Your task to perform on an android device: Search for asus zenbook on bestbuy.com, select the first entry, add it to the cart, then select checkout. Image 0: 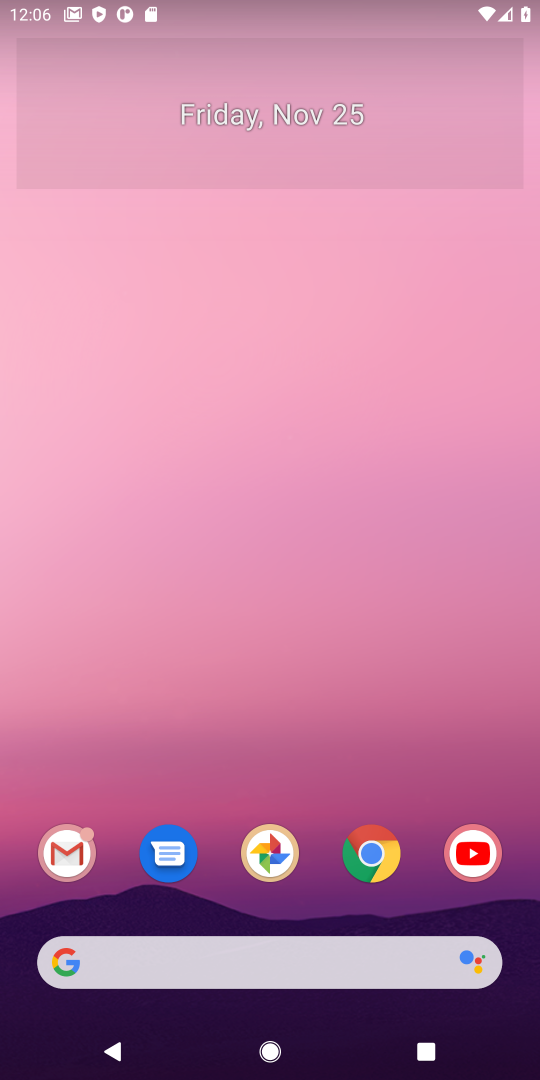
Step 0: click (328, 968)
Your task to perform on an android device: Search for asus zenbook on bestbuy.com, select the first entry, add it to the cart, then select checkout. Image 1: 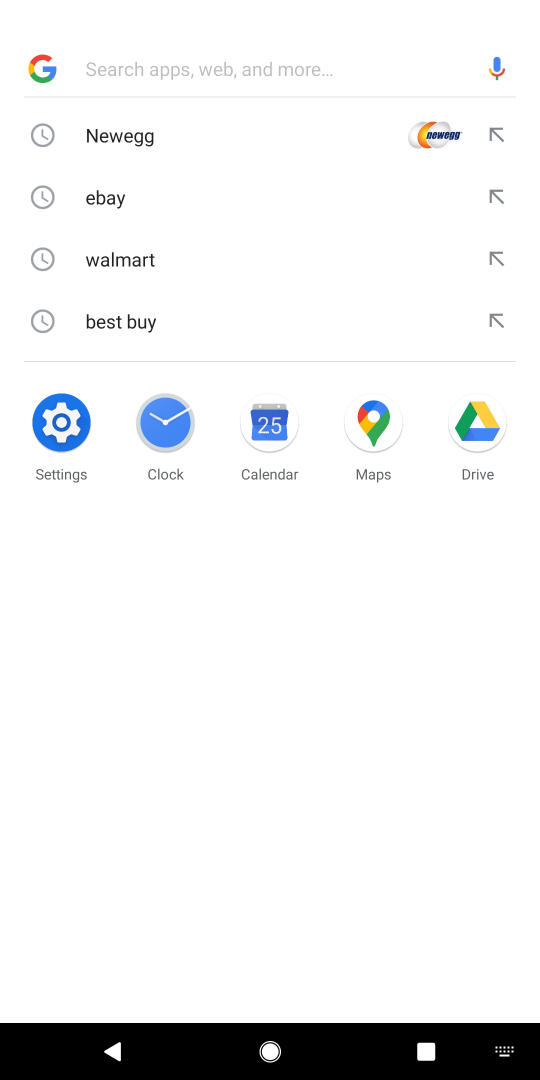
Step 1: click (177, 314)
Your task to perform on an android device: Search for asus zenbook on bestbuy.com, select the first entry, add it to the cart, then select checkout. Image 2: 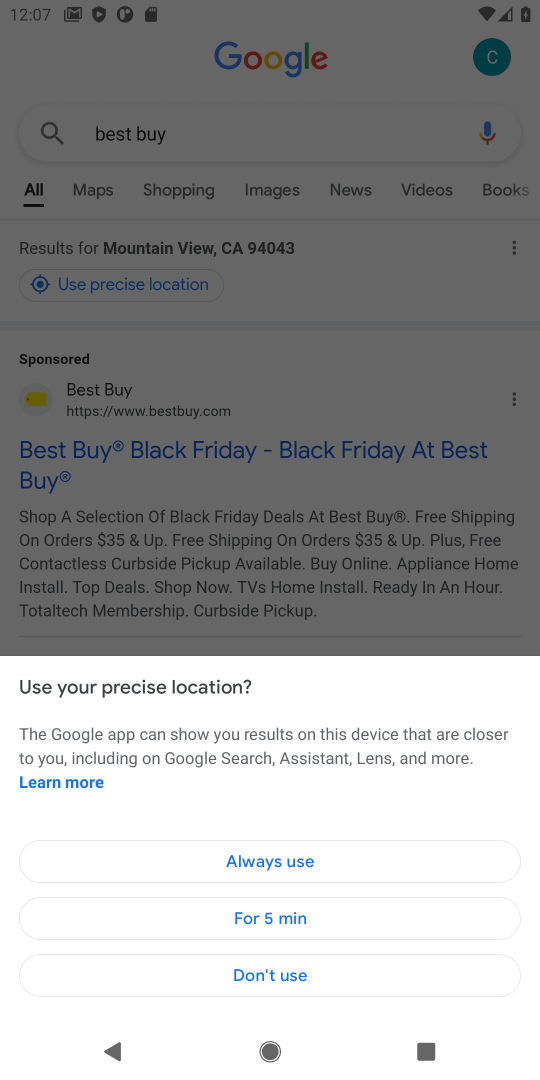
Step 2: click (290, 966)
Your task to perform on an android device: Search for asus zenbook on bestbuy.com, select the first entry, add it to the cart, then select checkout. Image 3: 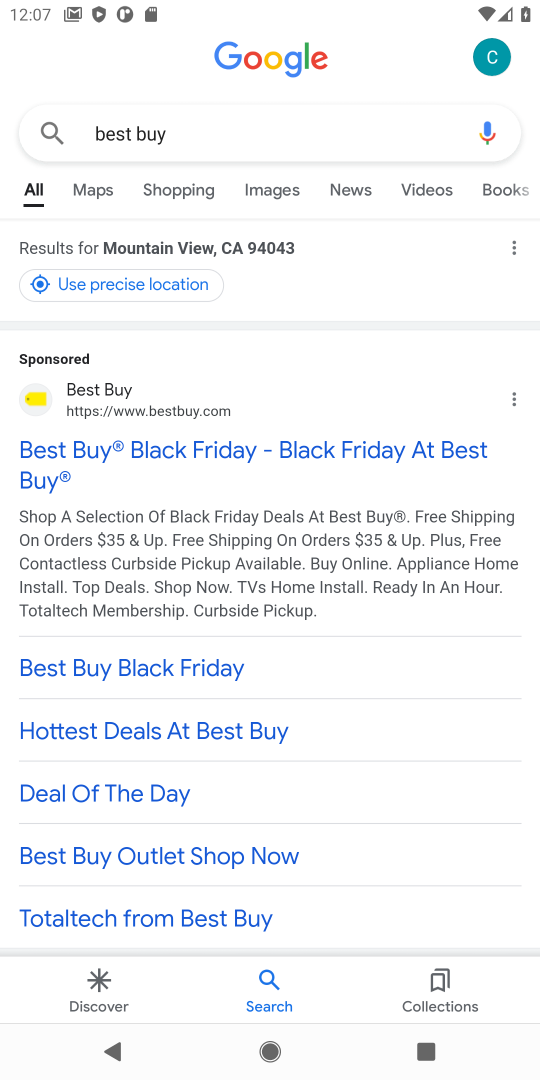
Step 3: click (285, 463)
Your task to perform on an android device: Search for asus zenbook on bestbuy.com, select the first entry, add it to the cart, then select checkout. Image 4: 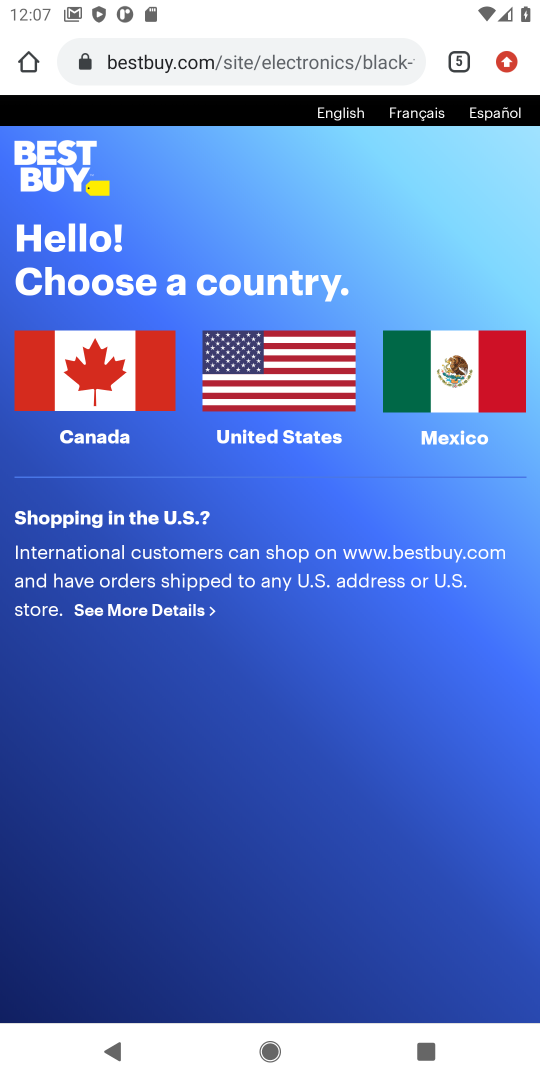
Step 4: click (100, 387)
Your task to perform on an android device: Search for asus zenbook on bestbuy.com, select the first entry, add it to the cart, then select checkout. Image 5: 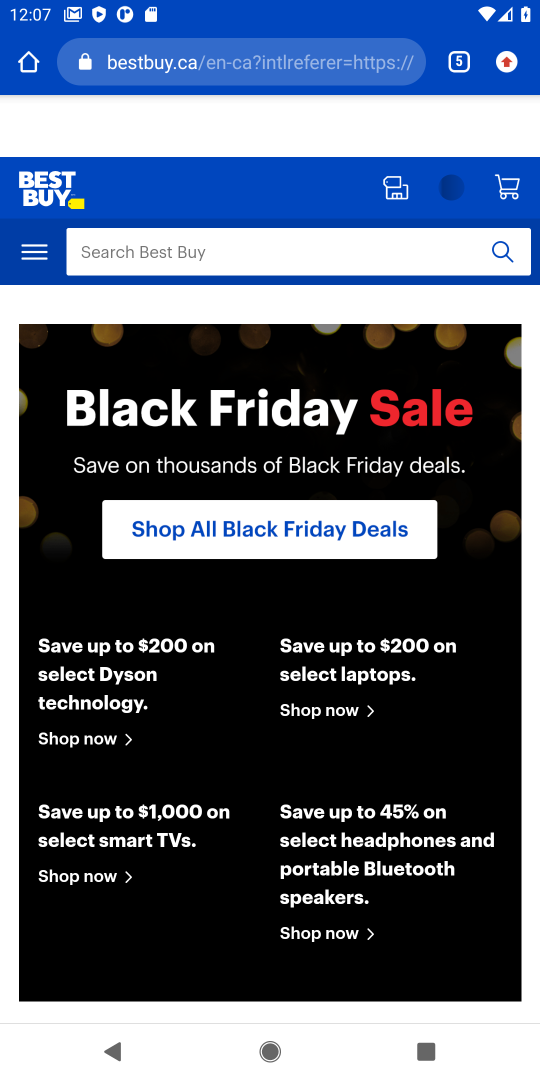
Step 5: click (186, 244)
Your task to perform on an android device: Search for asus zenbook on bestbuy.com, select the first entry, add it to the cart, then select checkout. Image 6: 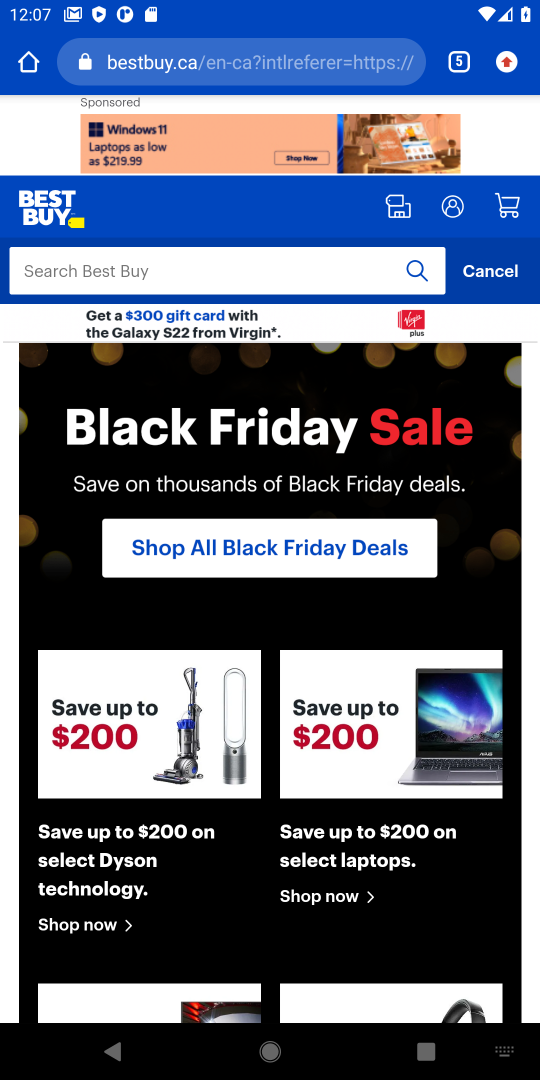
Step 6: type "asus zenbook"
Your task to perform on an android device: Search for asus zenbook on bestbuy.com, select the first entry, add it to the cart, then select checkout. Image 7: 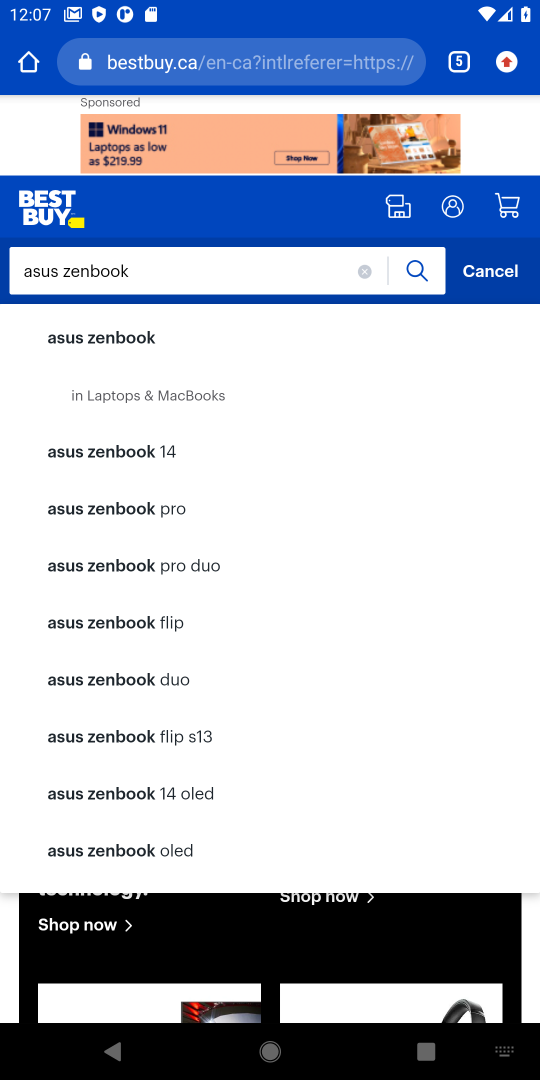
Step 7: click (174, 347)
Your task to perform on an android device: Search for asus zenbook on bestbuy.com, select the first entry, add it to the cart, then select checkout. Image 8: 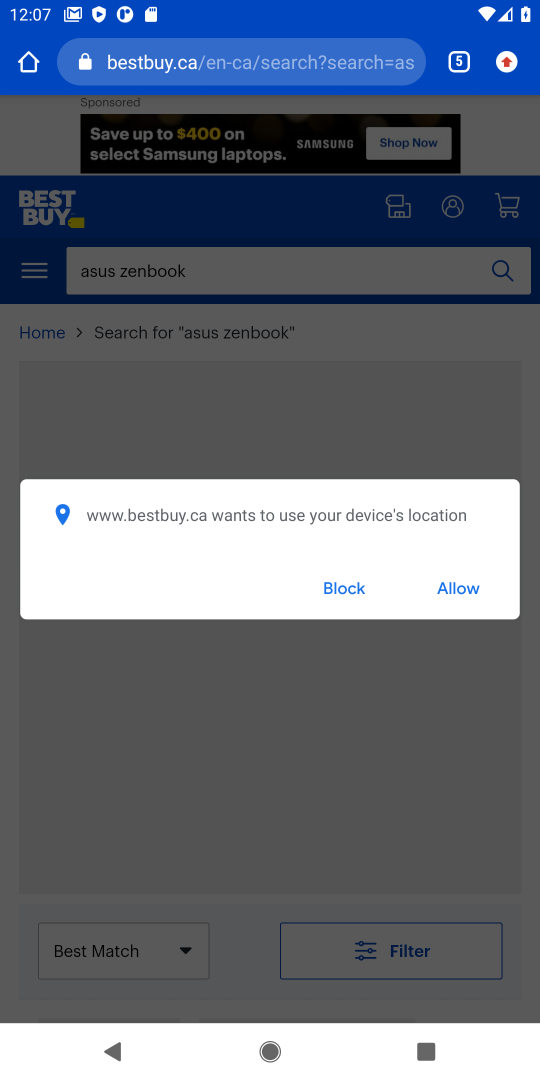
Step 8: click (343, 609)
Your task to perform on an android device: Search for asus zenbook on bestbuy.com, select the first entry, add it to the cart, then select checkout. Image 9: 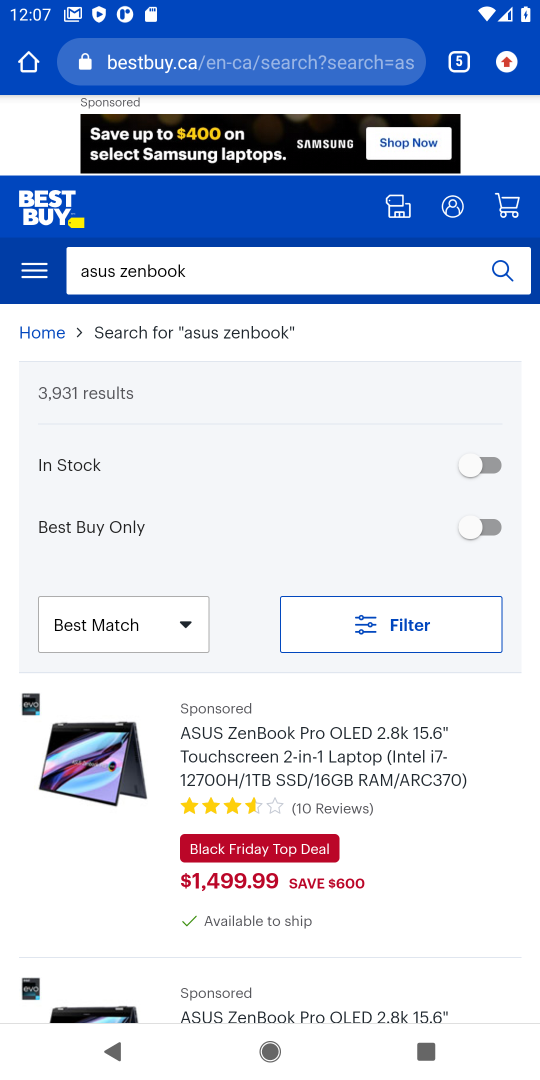
Step 9: drag from (449, 843) to (356, 531)
Your task to perform on an android device: Search for asus zenbook on bestbuy.com, select the first entry, add it to the cart, then select checkout. Image 10: 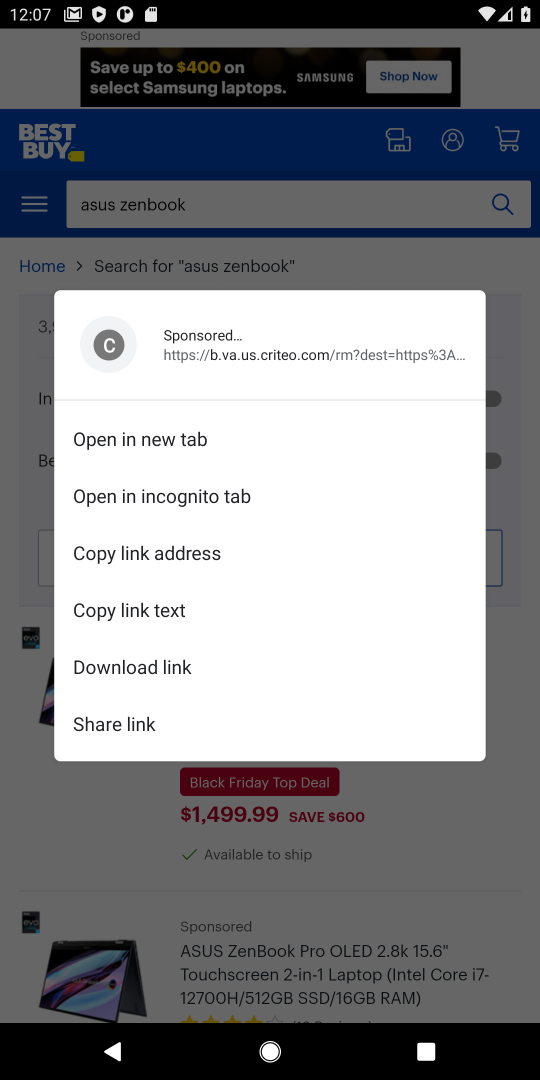
Step 10: click (424, 831)
Your task to perform on an android device: Search for asus zenbook on bestbuy.com, select the first entry, add it to the cart, then select checkout. Image 11: 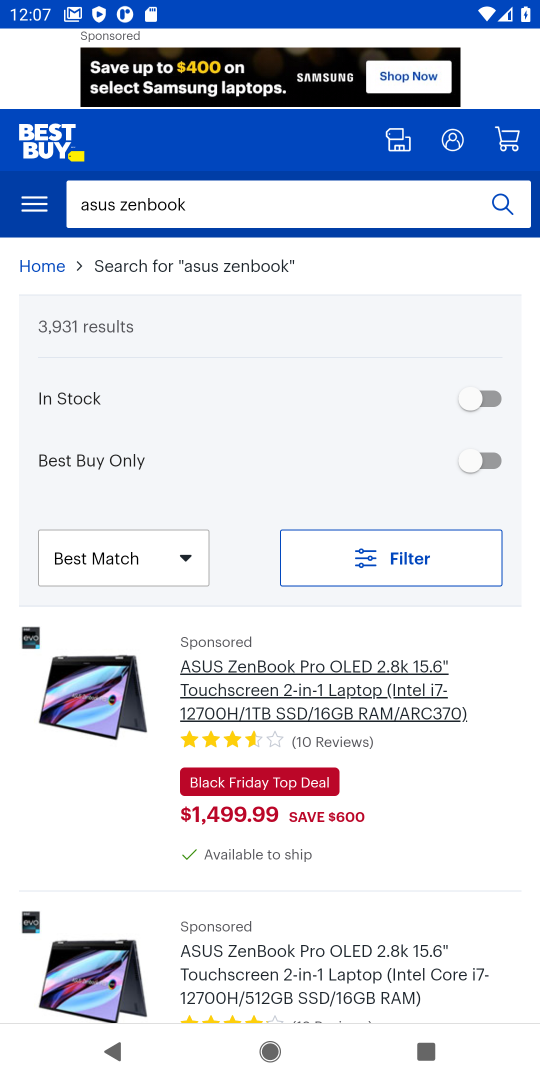
Step 11: click (334, 696)
Your task to perform on an android device: Search for asus zenbook on bestbuy.com, select the first entry, add it to the cart, then select checkout. Image 12: 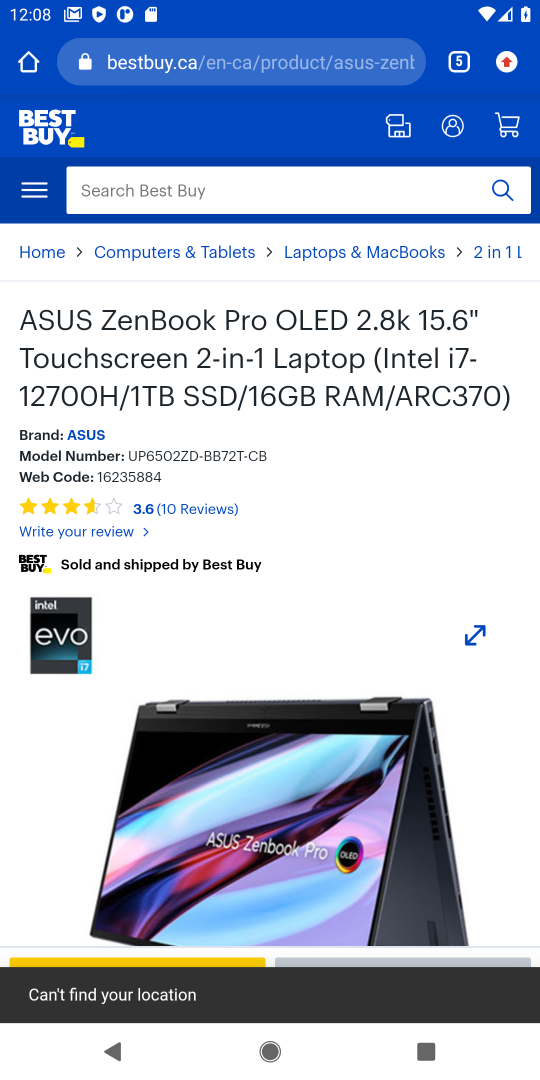
Step 12: click (180, 974)
Your task to perform on an android device: Search for asus zenbook on bestbuy.com, select the first entry, add it to the cart, then select checkout. Image 13: 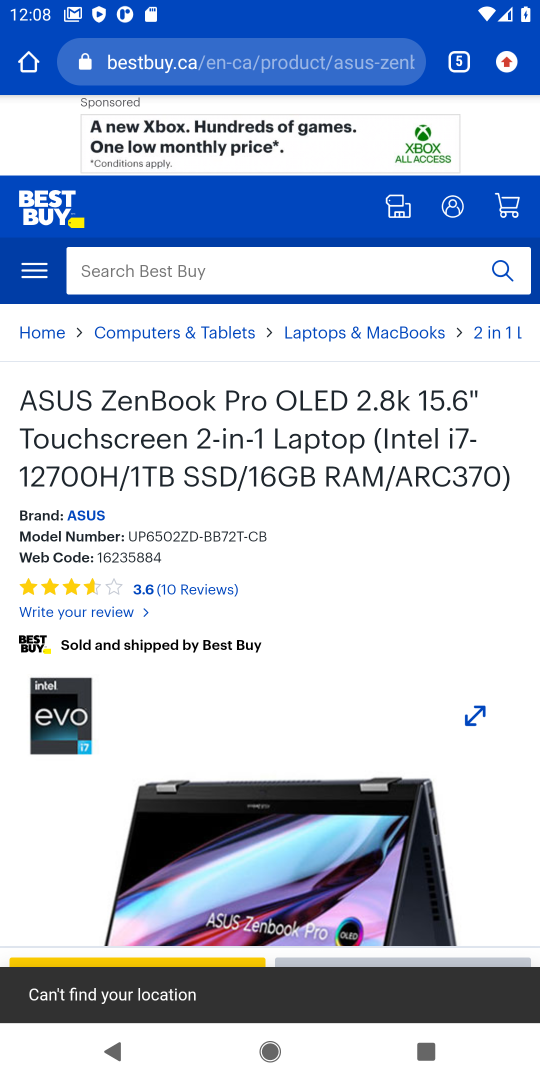
Step 13: task complete